Your task to perform on an android device: Show me the alarms in the clock app Image 0: 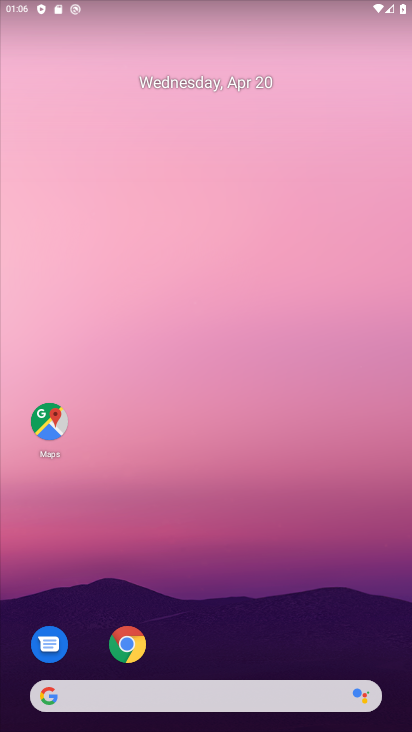
Step 0: drag from (193, 428) to (227, 1)
Your task to perform on an android device: Show me the alarms in the clock app Image 1: 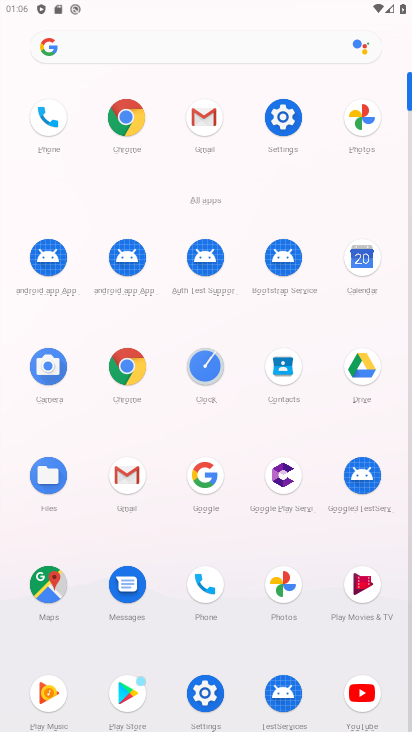
Step 1: click (210, 353)
Your task to perform on an android device: Show me the alarms in the clock app Image 2: 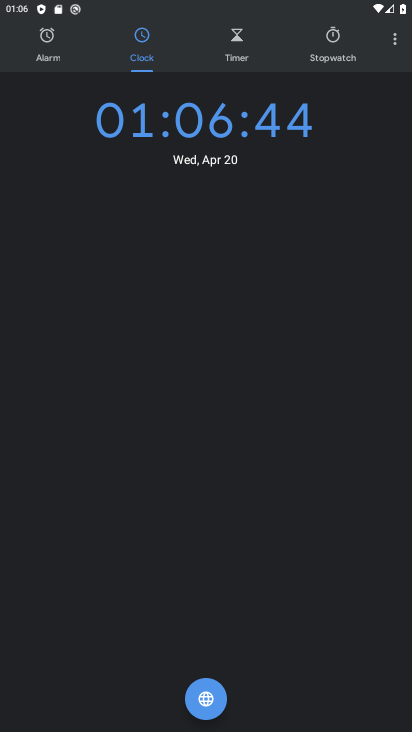
Step 2: click (55, 45)
Your task to perform on an android device: Show me the alarms in the clock app Image 3: 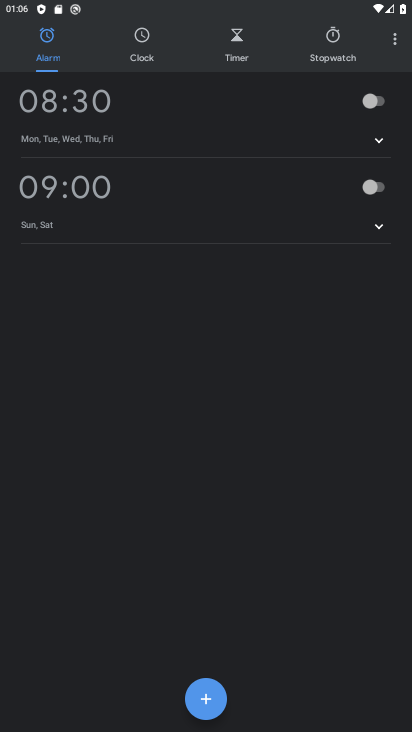
Step 3: task complete